Your task to perform on an android device: see tabs open on other devices in the chrome app Image 0: 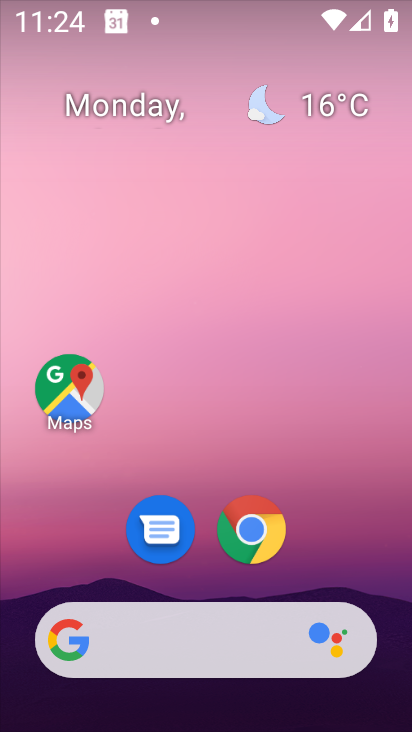
Step 0: drag from (223, 583) to (286, 134)
Your task to perform on an android device: see tabs open on other devices in the chrome app Image 1: 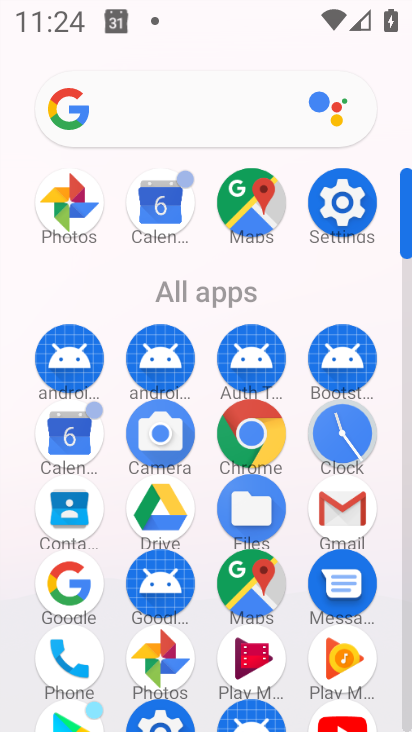
Step 1: click (251, 423)
Your task to perform on an android device: see tabs open on other devices in the chrome app Image 2: 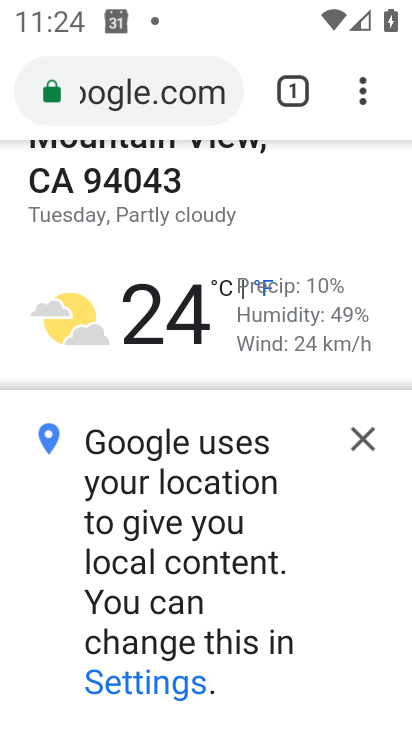
Step 2: click (365, 89)
Your task to perform on an android device: see tabs open on other devices in the chrome app Image 3: 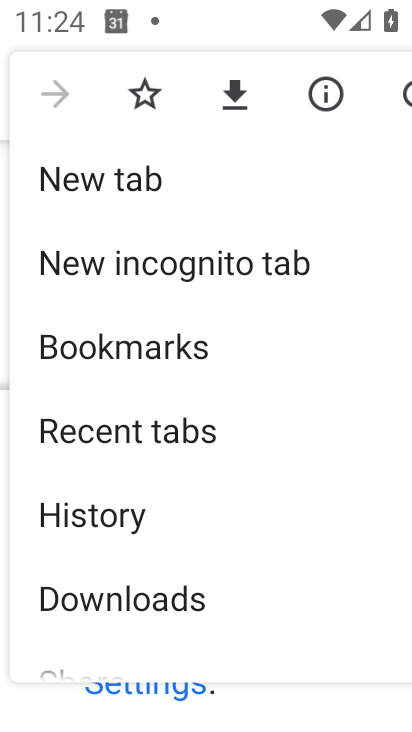
Step 3: drag from (126, 609) to (167, 692)
Your task to perform on an android device: see tabs open on other devices in the chrome app Image 4: 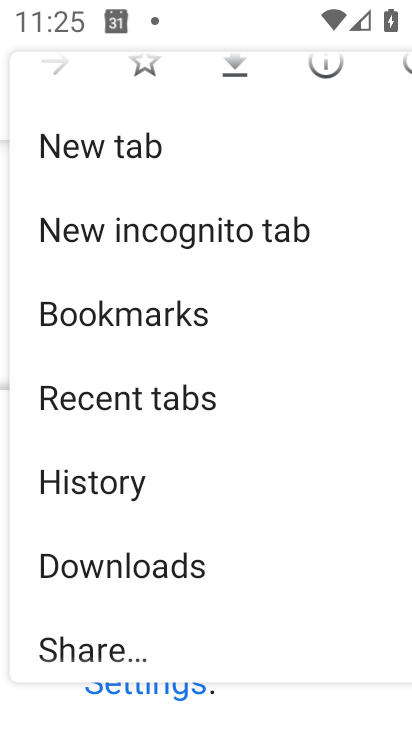
Step 4: click (145, 418)
Your task to perform on an android device: see tabs open on other devices in the chrome app Image 5: 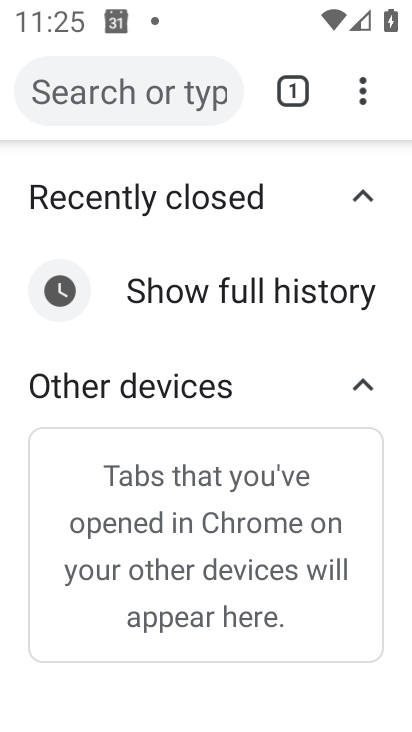
Step 5: task complete